Your task to perform on an android device: Open ESPN.com Image 0: 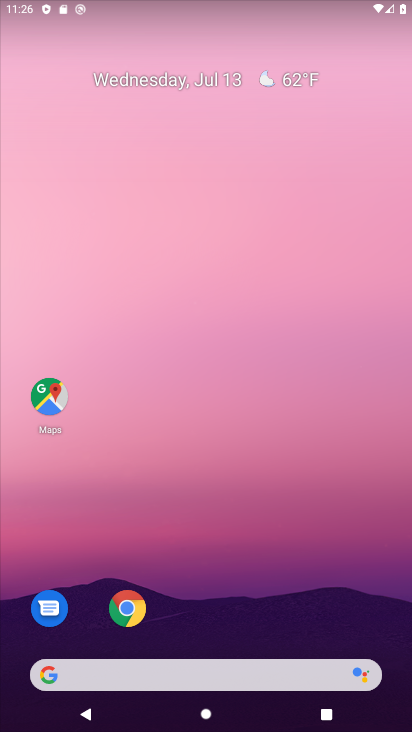
Step 0: drag from (231, 661) to (229, 125)
Your task to perform on an android device: Open ESPN.com Image 1: 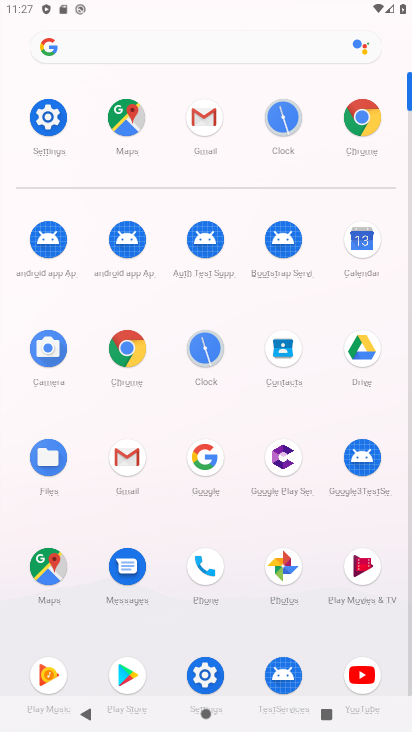
Step 1: click (126, 351)
Your task to perform on an android device: Open ESPN.com Image 2: 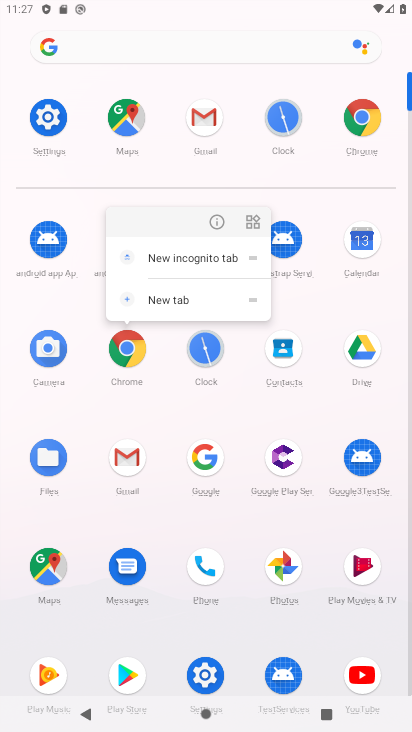
Step 2: click (121, 343)
Your task to perform on an android device: Open ESPN.com Image 3: 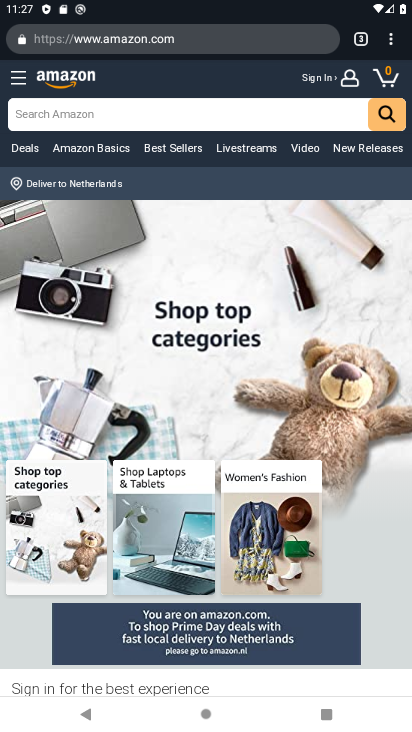
Step 3: click (389, 49)
Your task to perform on an android device: Open ESPN.com Image 4: 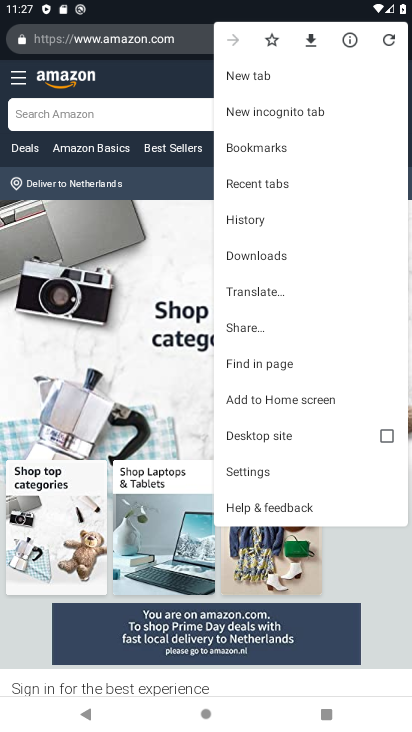
Step 4: click (256, 71)
Your task to perform on an android device: Open ESPN.com Image 5: 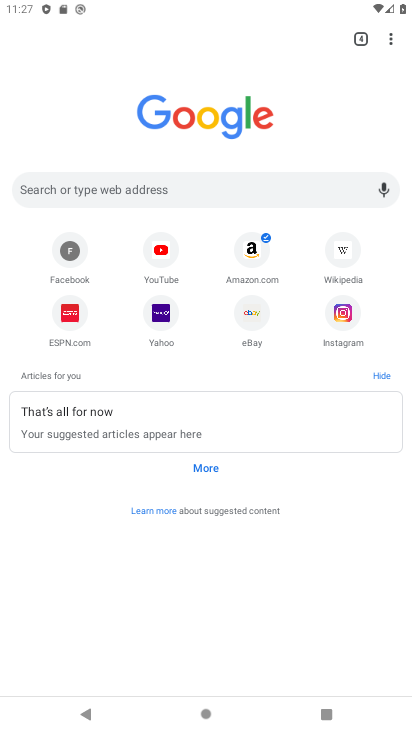
Step 5: click (72, 310)
Your task to perform on an android device: Open ESPN.com Image 6: 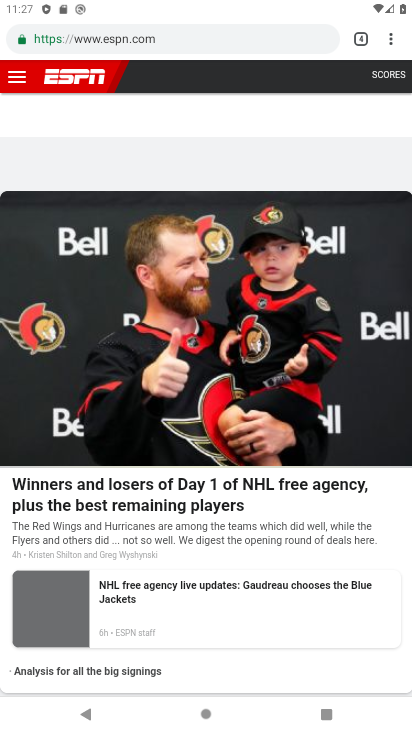
Step 6: task complete